Your task to perform on an android device: Open wifi settings Image 0: 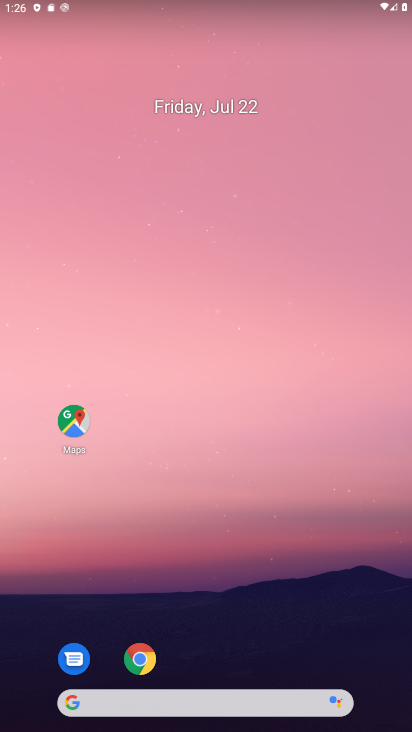
Step 0: drag from (269, 670) to (299, 25)
Your task to perform on an android device: Open wifi settings Image 1: 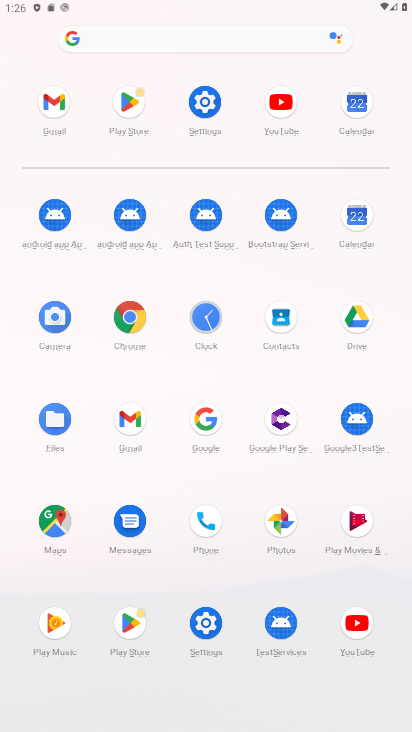
Step 1: click (206, 134)
Your task to perform on an android device: Open wifi settings Image 2: 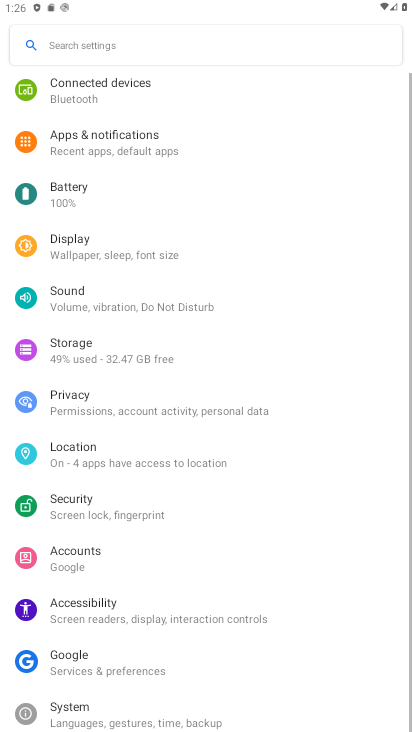
Step 2: task complete